Your task to perform on an android device: Go to Reddit.com Image 0: 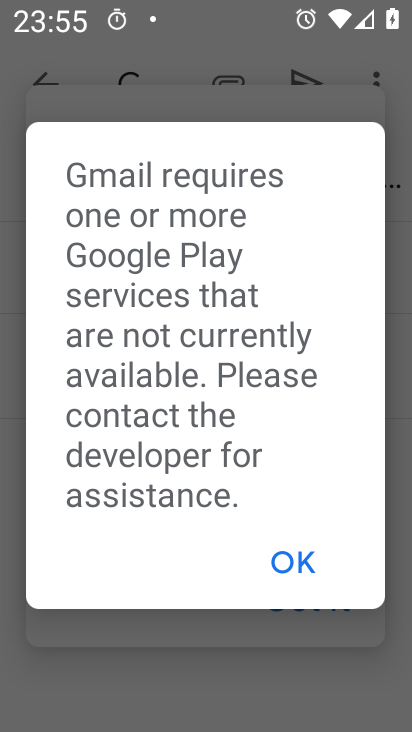
Step 0: click (293, 560)
Your task to perform on an android device: Go to Reddit.com Image 1: 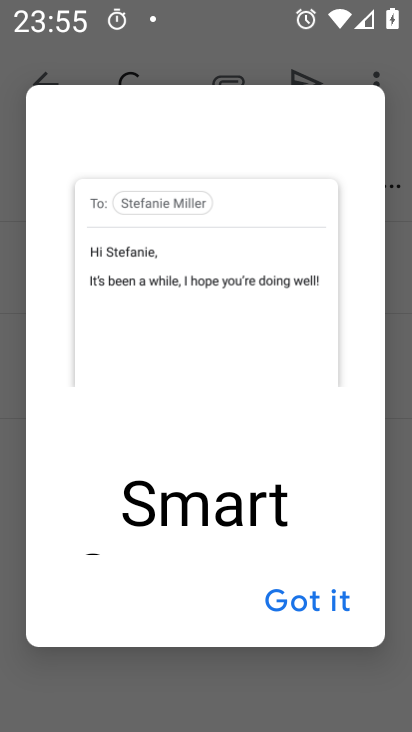
Step 1: press home button
Your task to perform on an android device: Go to Reddit.com Image 2: 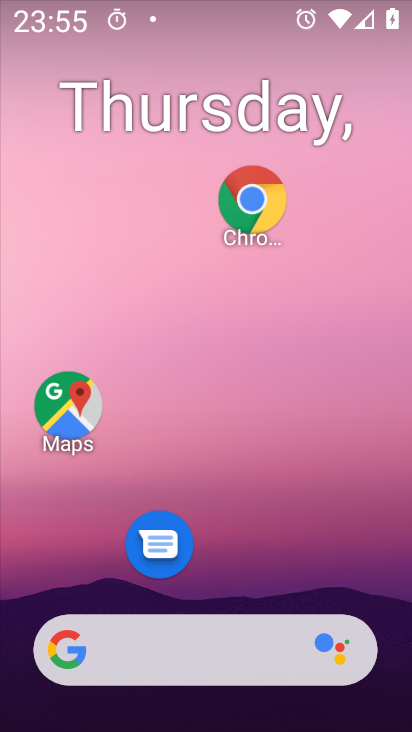
Step 2: click (190, 635)
Your task to perform on an android device: Go to Reddit.com Image 3: 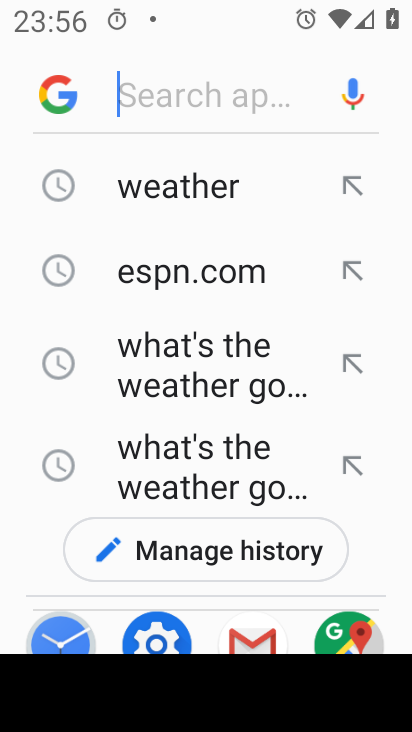
Step 3: type "reddit.com"
Your task to perform on an android device: Go to Reddit.com Image 4: 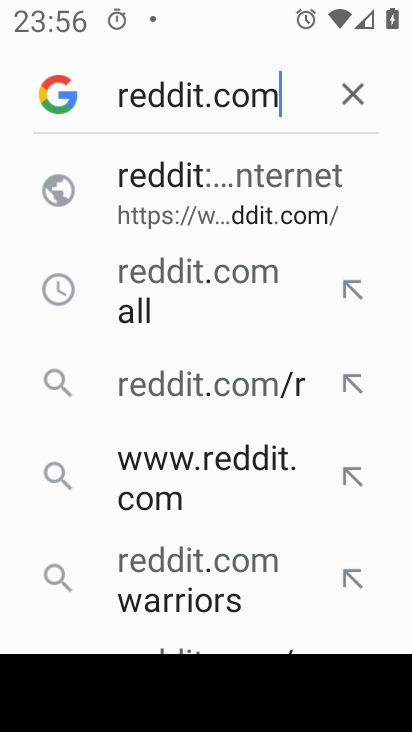
Step 4: click (191, 214)
Your task to perform on an android device: Go to Reddit.com Image 5: 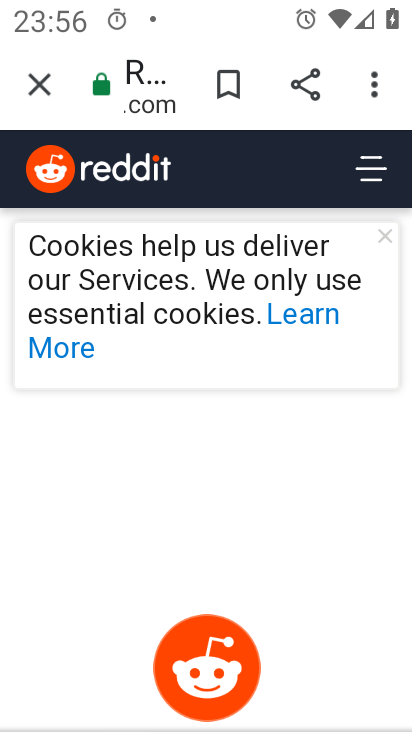
Step 5: task complete